Your task to perform on an android device: turn on priority inbox in the gmail app Image 0: 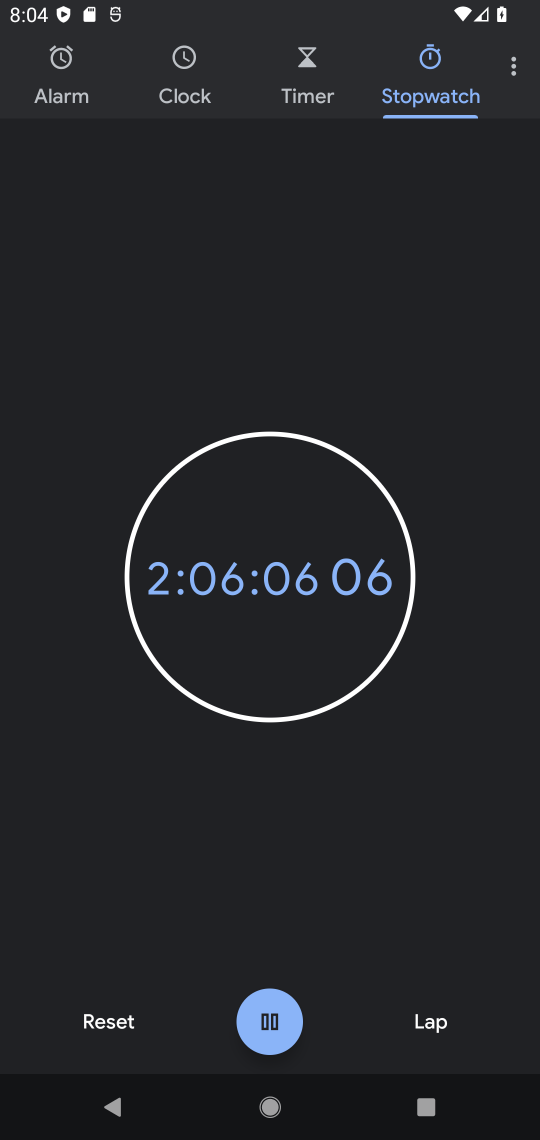
Step 0: press home button
Your task to perform on an android device: turn on priority inbox in the gmail app Image 1: 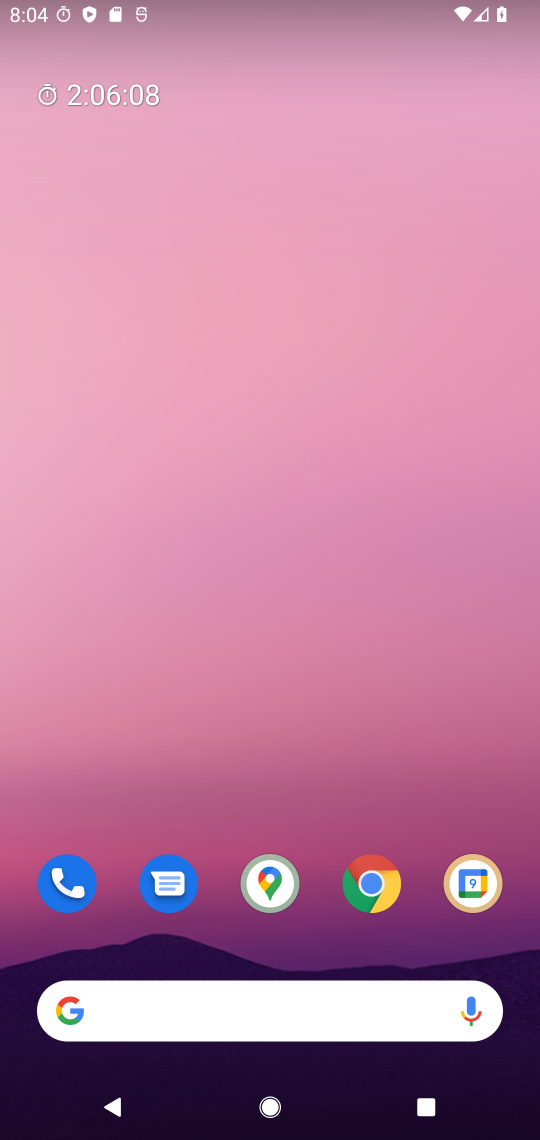
Step 1: drag from (397, 589) to (482, 220)
Your task to perform on an android device: turn on priority inbox in the gmail app Image 2: 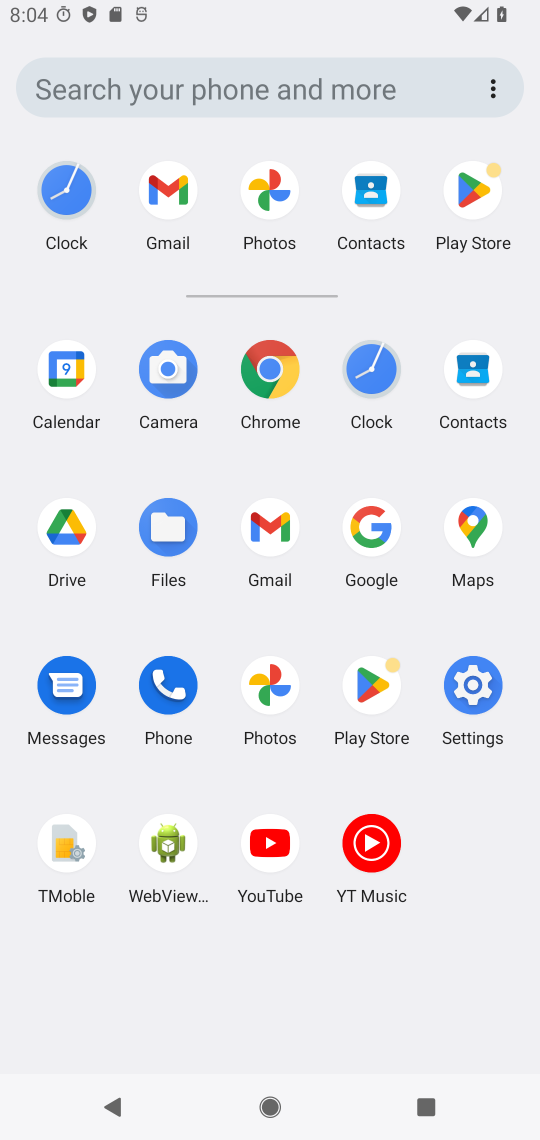
Step 2: click (264, 549)
Your task to perform on an android device: turn on priority inbox in the gmail app Image 3: 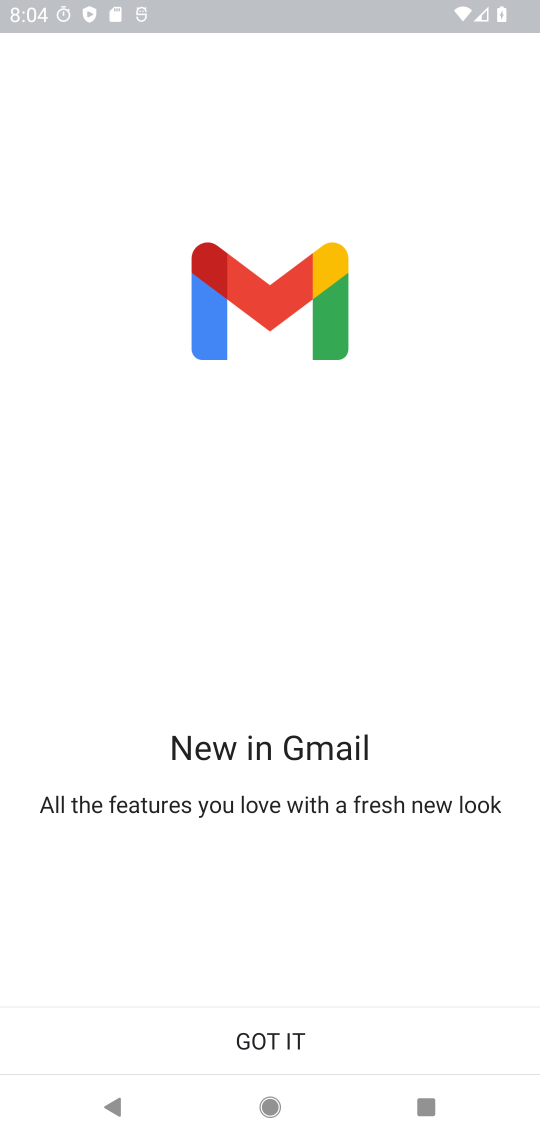
Step 3: click (364, 1029)
Your task to perform on an android device: turn on priority inbox in the gmail app Image 4: 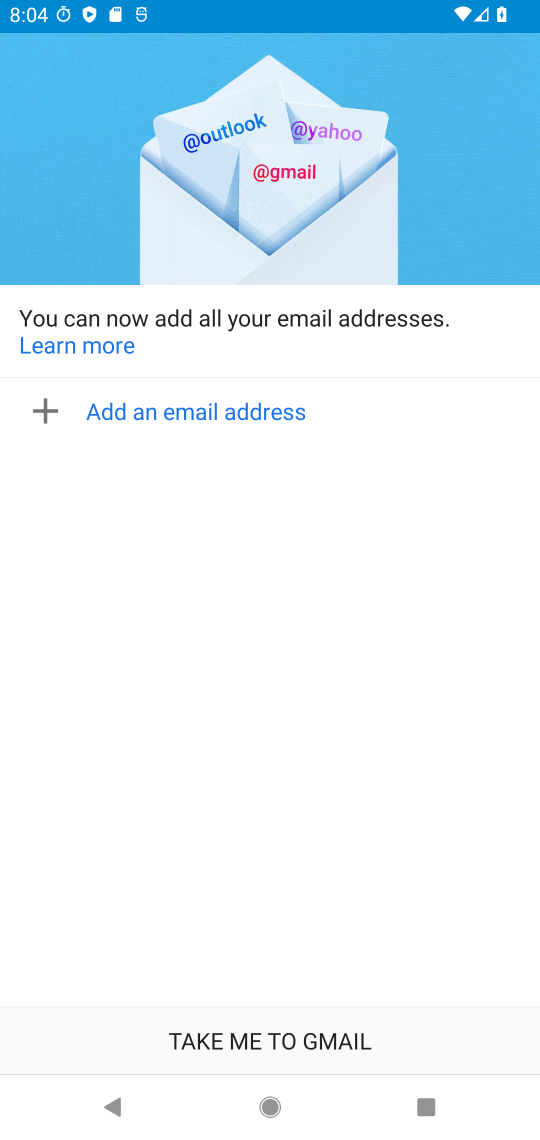
Step 4: click (364, 1029)
Your task to perform on an android device: turn on priority inbox in the gmail app Image 5: 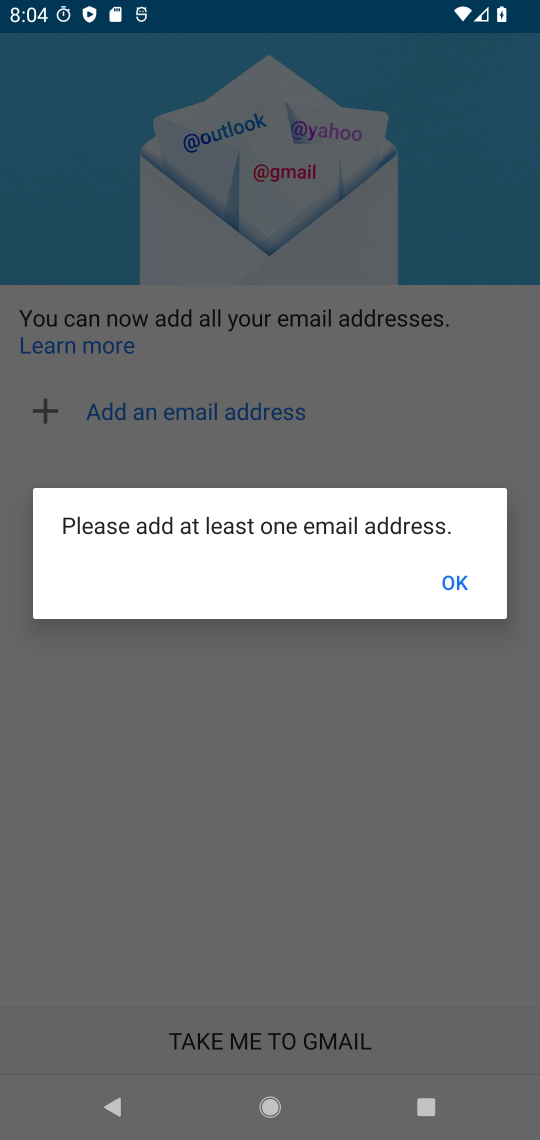
Step 5: click (454, 587)
Your task to perform on an android device: turn on priority inbox in the gmail app Image 6: 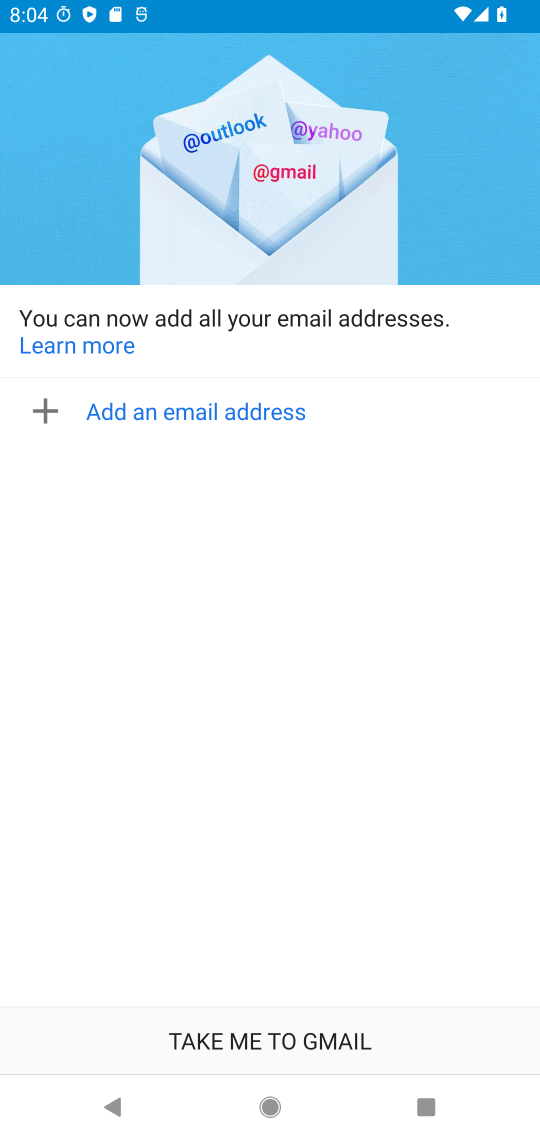
Step 6: task complete